Your task to perform on an android device: see creations saved in the google photos Image 0: 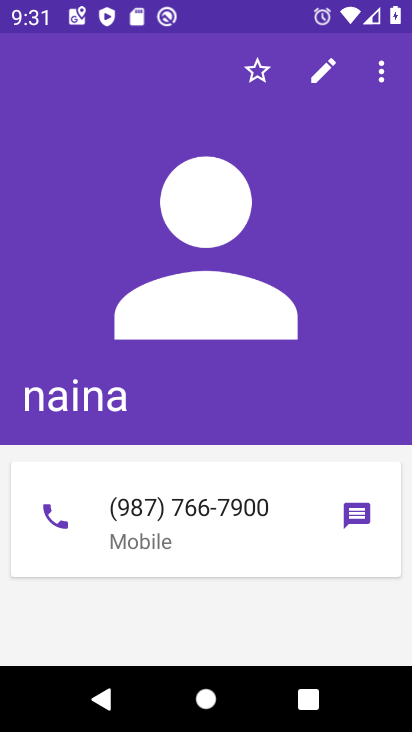
Step 0: press home button
Your task to perform on an android device: see creations saved in the google photos Image 1: 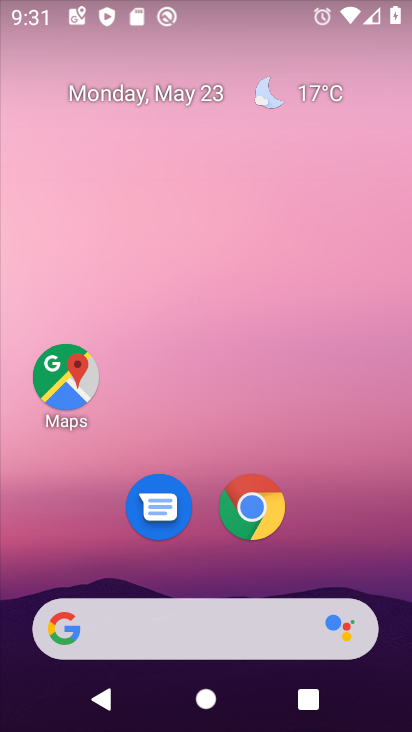
Step 1: drag from (368, 585) to (362, 5)
Your task to perform on an android device: see creations saved in the google photos Image 2: 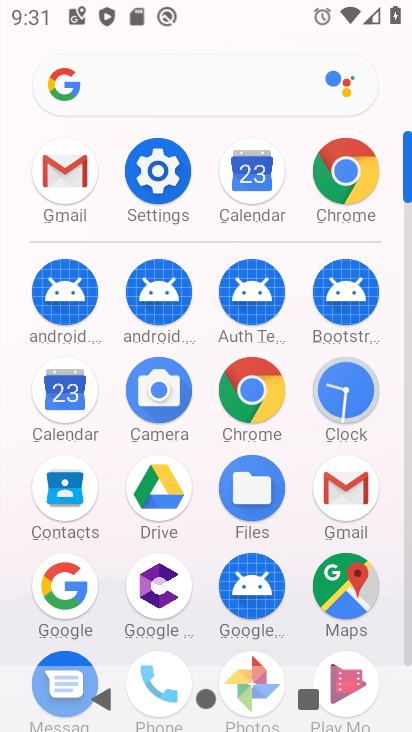
Step 2: click (411, 514)
Your task to perform on an android device: see creations saved in the google photos Image 3: 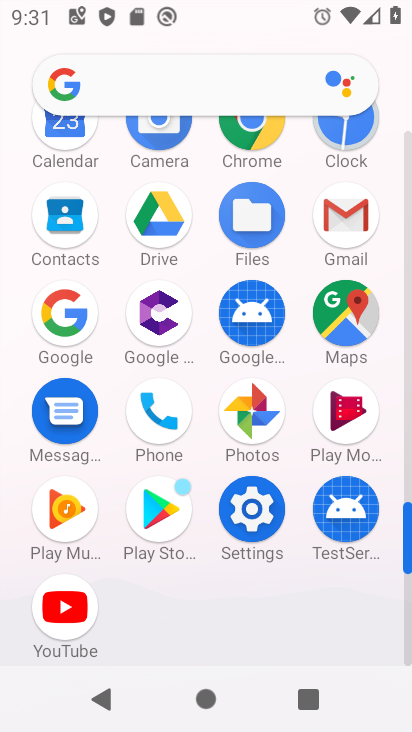
Step 3: click (250, 407)
Your task to perform on an android device: see creations saved in the google photos Image 4: 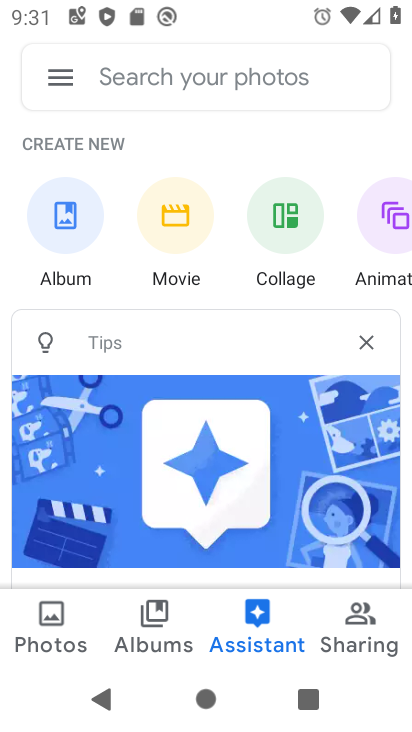
Step 4: click (142, 78)
Your task to perform on an android device: see creations saved in the google photos Image 5: 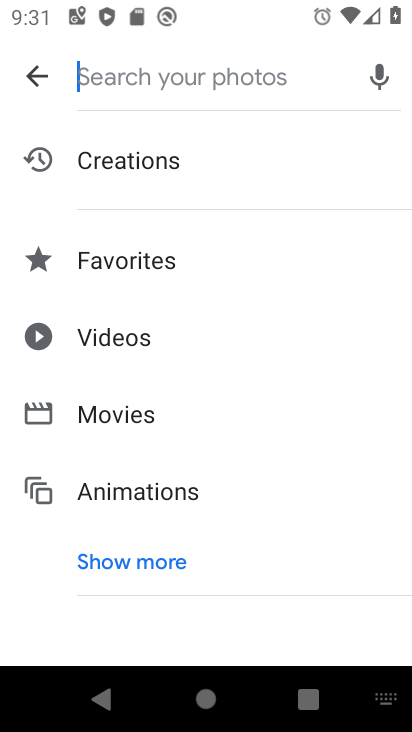
Step 5: click (107, 165)
Your task to perform on an android device: see creations saved in the google photos Image 6: 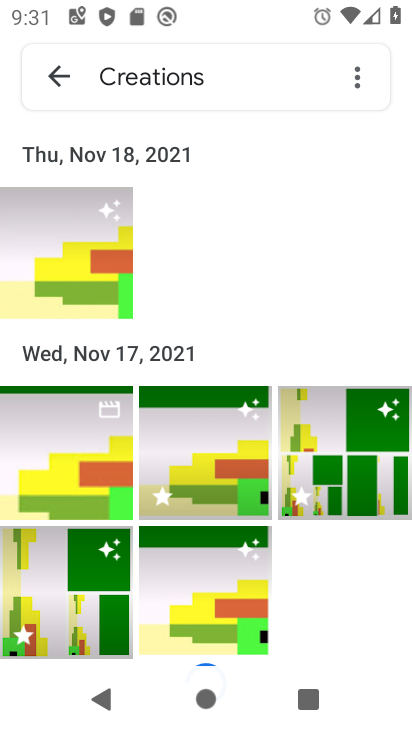
Step 6: task complete